Your task to perform on an android device: change the clock style Image 0: 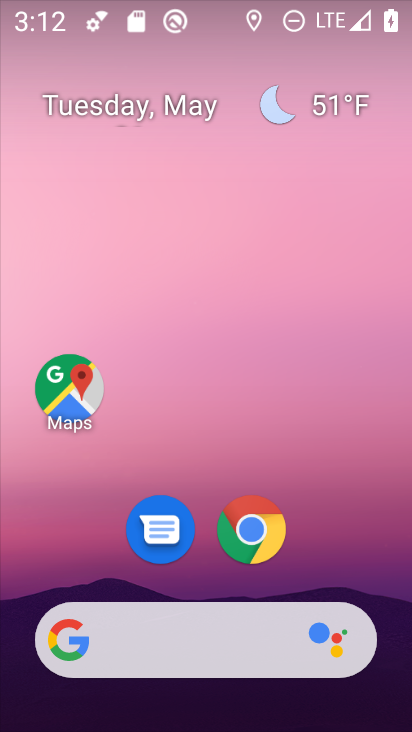
Step 0: drag from (192, 568) to (239, 81)
Your task to perform on an android device: change the clock style Image 1: 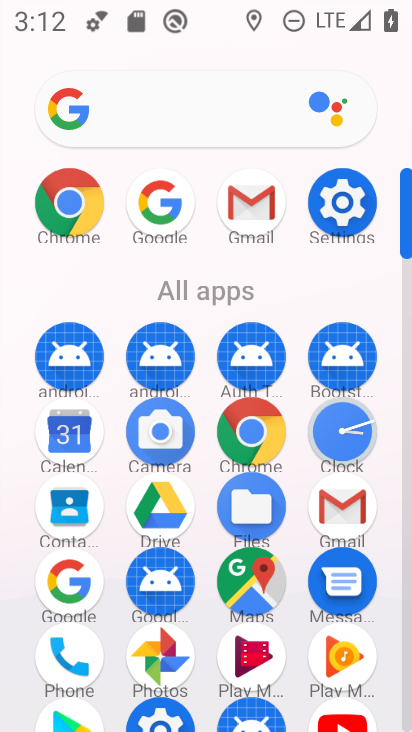
Step 1: click (346, 425)
Your task to perform on an android device: change the clock style Image 2: 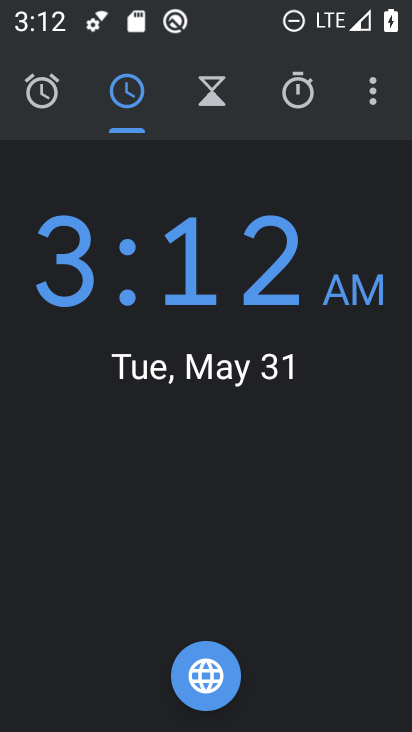
Step 2: click (370, 95)
Your task to perform on an android device: change the clock style Image 3: 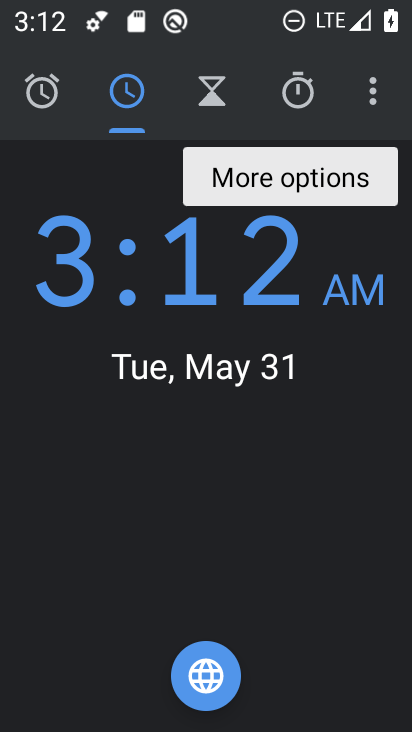
Step 3: click (372, 99)
Your task to perform on an android device: change the clock style Image 4: 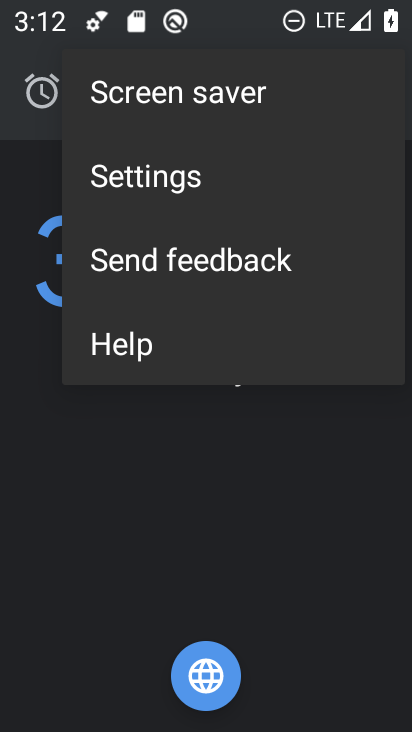
Step 4: click (164, 189)
Your task to perform on an android device: change the clock style Image 5: 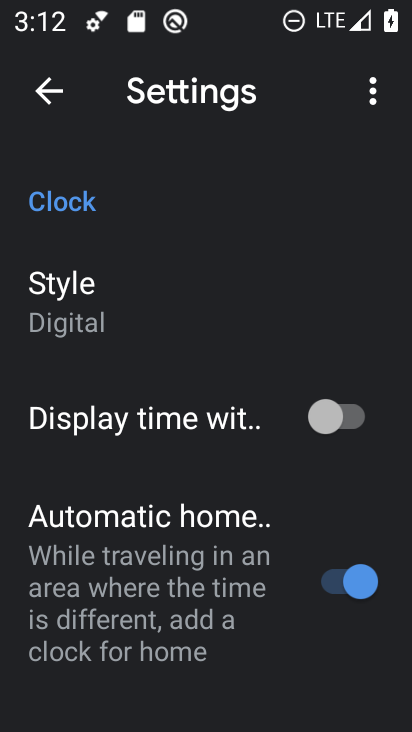
Step 5: click (160, 306)
Your task to perform on an android device: change the clock style Image 6: 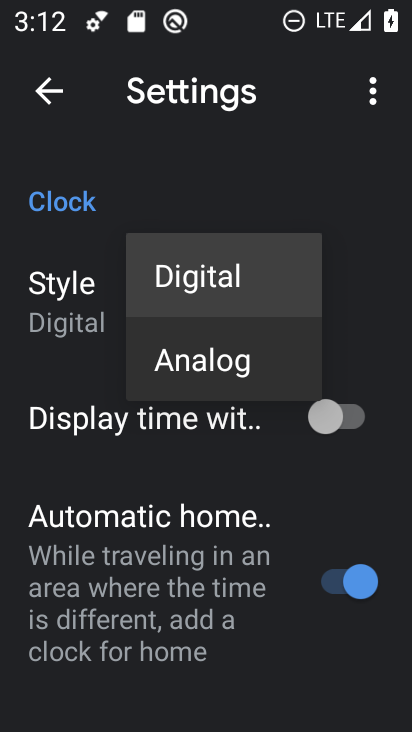
Step 6: click (173, 365)
Your task to perform on an android device: change the clock style Image 7: 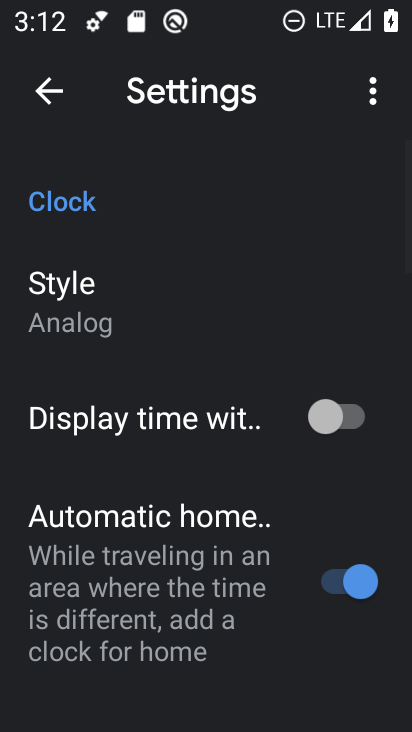
Step 7: task complete